Your task to perform on an android device: turn off translation in the chrome app Image 0: 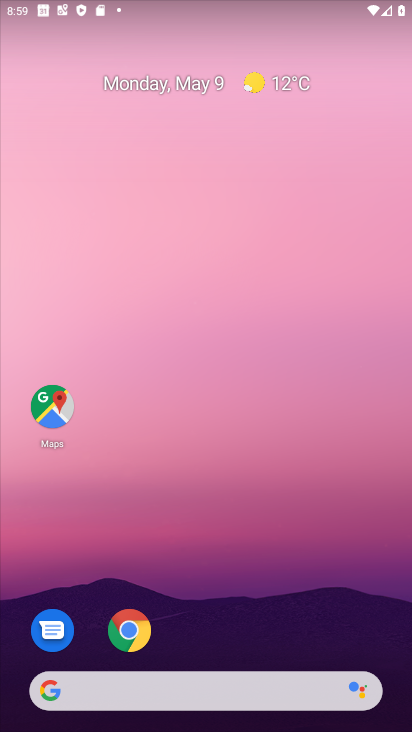
Step 0: click (130, 632)
Your task to perform on an android device: turn off translation in the chrome app Image 1: 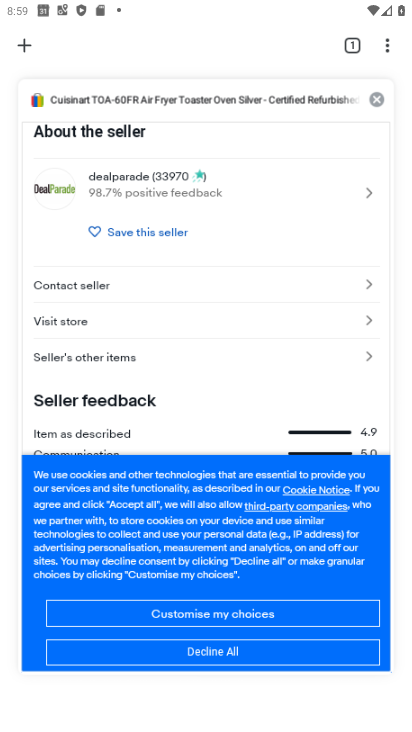
Step 1: click (389, 43)
Your task to perform on an android device: turn off translation in the chrome app Image 2: 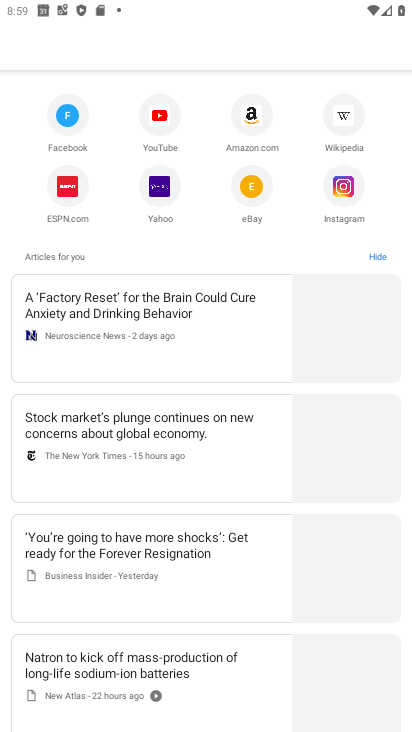
Step 2: click (389, 43)
Your task to perform on an android device: turn off translation in the chrome app Image 3: 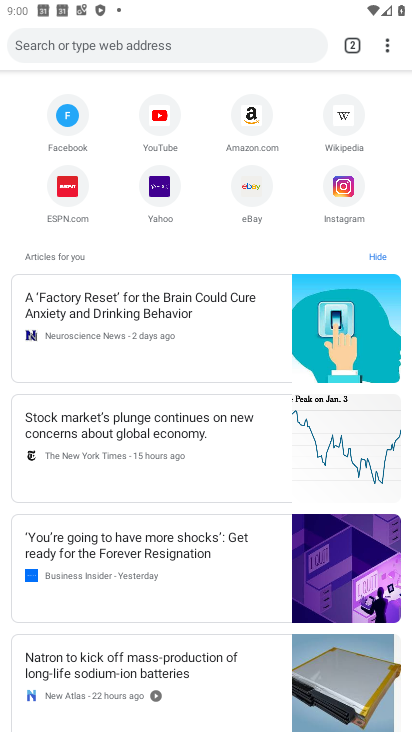
Step 3: click (387, 42)
Your task to perform on an android device: turn off translation in the chrome app Image 4: 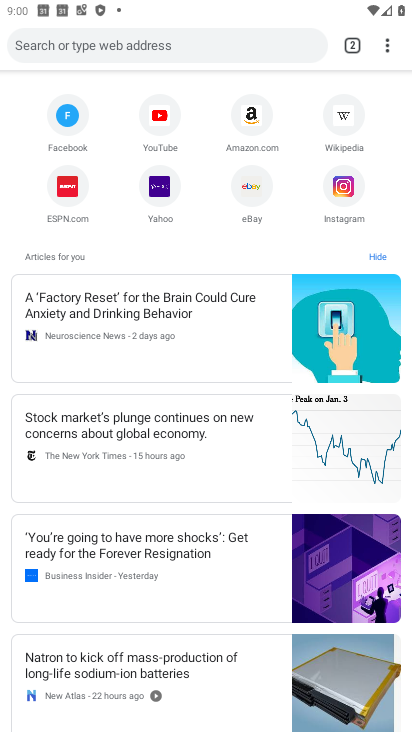
Step 4: click (387, 42)
Your task to perform on an android device: turn off translation in the chrome app Image 5: 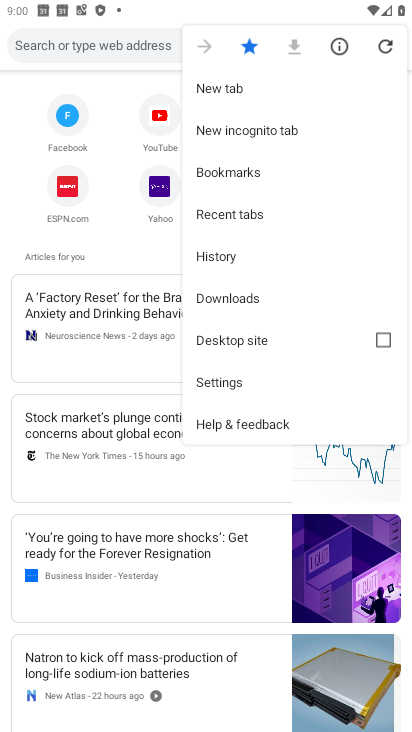
Step 5: click (232, 375)
Your task to perform on an android device: turn off translation in the chrome app Image 6: 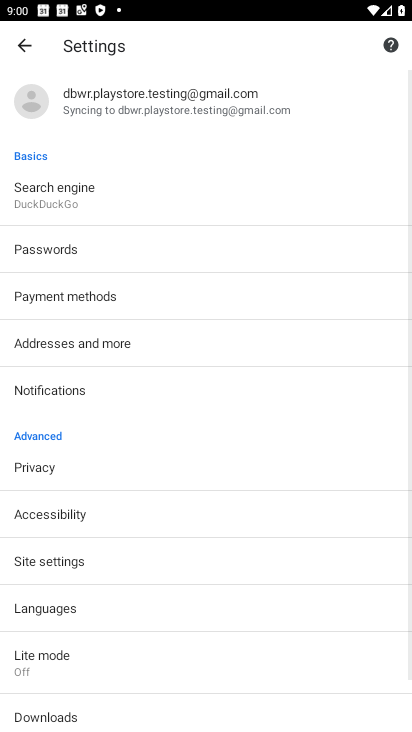
Step 6: drag from (95, 663) to (150, 284)
Your task to perform on an android device: turn off translation in the chrome app Image 7: 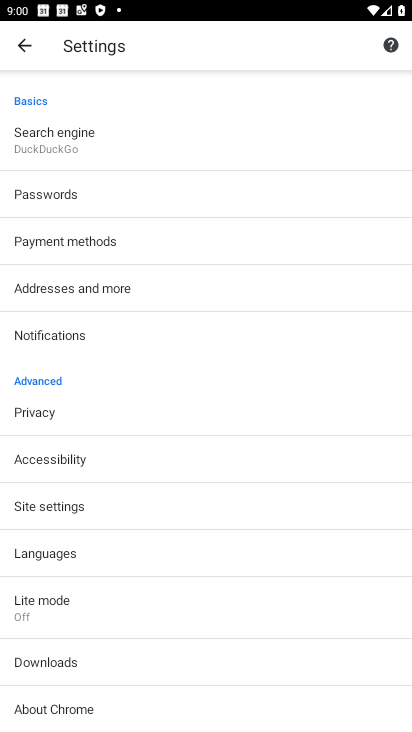
Step 7: click (55, 549)
Your task to perform on an android device: turn off translation in the chrome app Image 8: 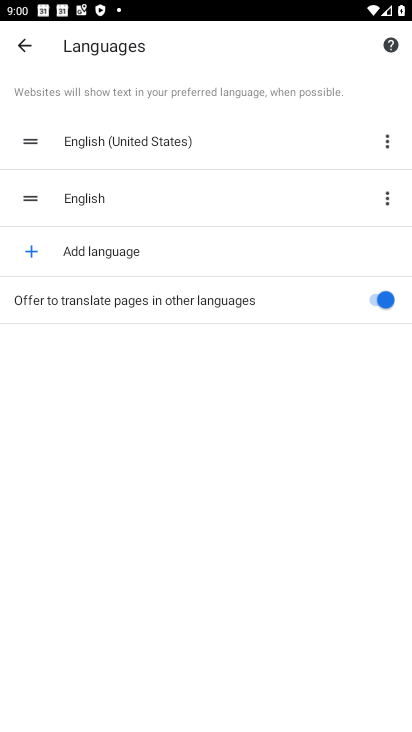
Step 8: click (363, 294)
Your task to perform on an android device: turn off translation in the chrome app Image 9: 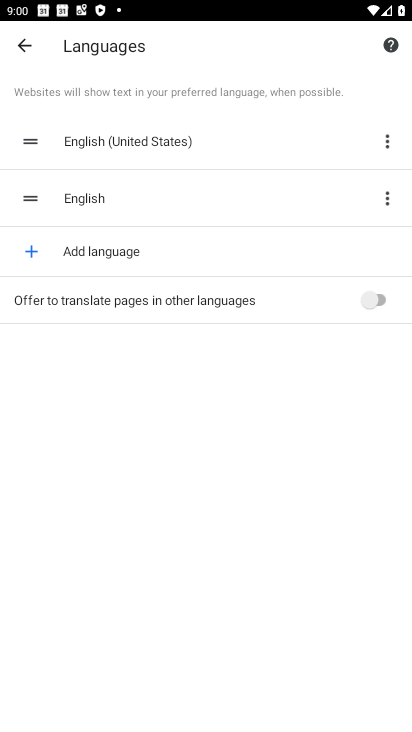
Step 9: task complete